Your task to perform on an android device: Open Maps and search for coffee Image 0: 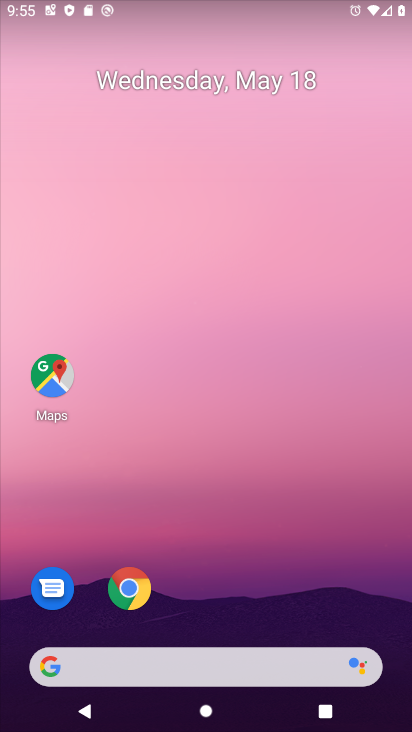
Step 0: drag from (262, 683) to (379, 0)
Your task to perform on an android device: Open Maps and search for coffee Image 1: 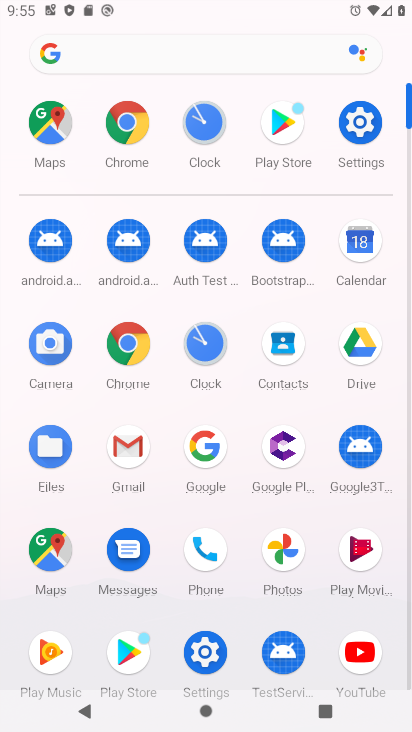
Step 1: click (62, 574)
Your task to perform on an android device: Open Maps and search for coffee Image 2: 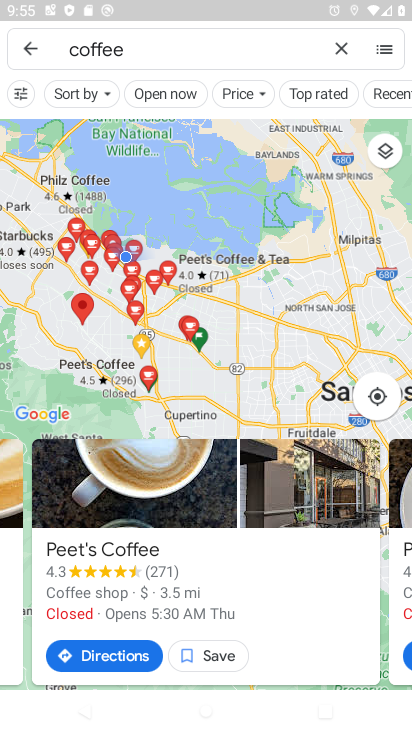
Step 2: click (103, 306)
Your task to perform on an android device: Open Maps and search for coffee Image 3: 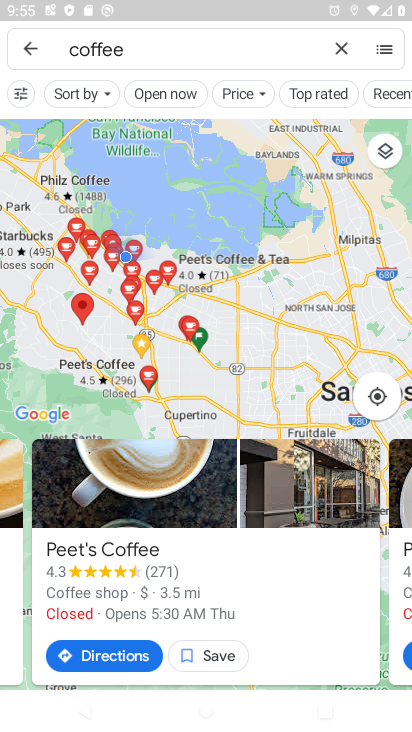
Step 3: click (135, 202)
Your task to perform on an android device: Open Maps and search for coffee Image 4: 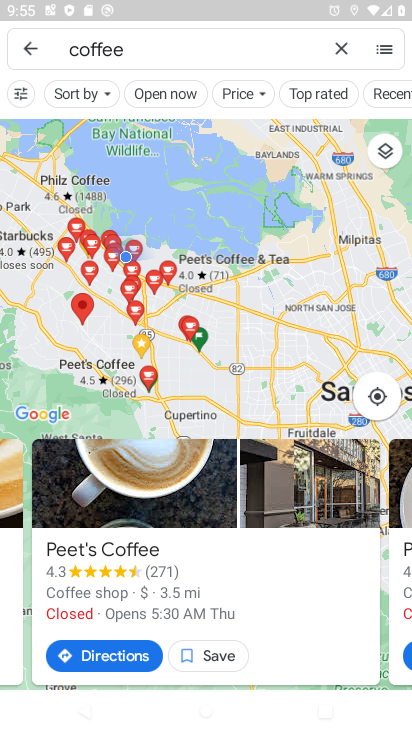
Step 4: click (117, 221)
Your task to perform on an android device: Open Maps and search for coffee Image 5: 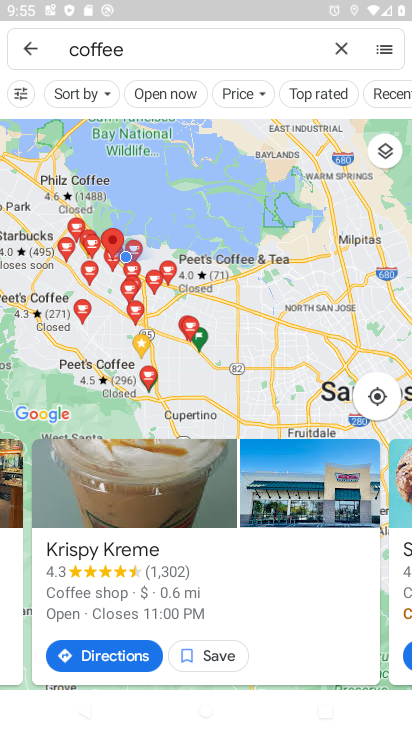
Step 5: click (108, 315)
Your task to perform on an android device: Open Maps and search for coffee Image 6: 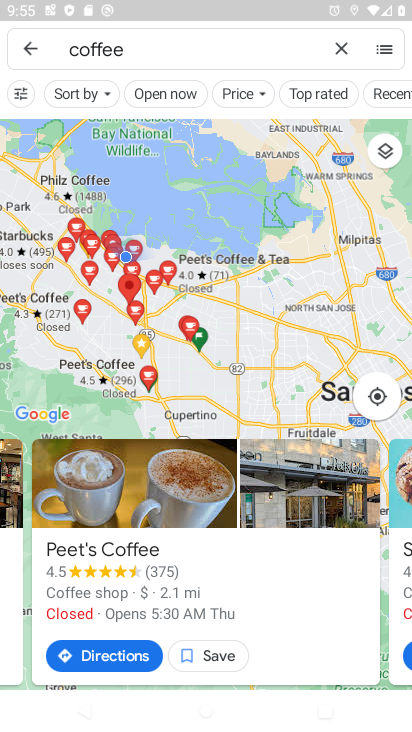
Step 6: task complete